Your task to perform on an android device: set default search engine in the chrome app Image 0: 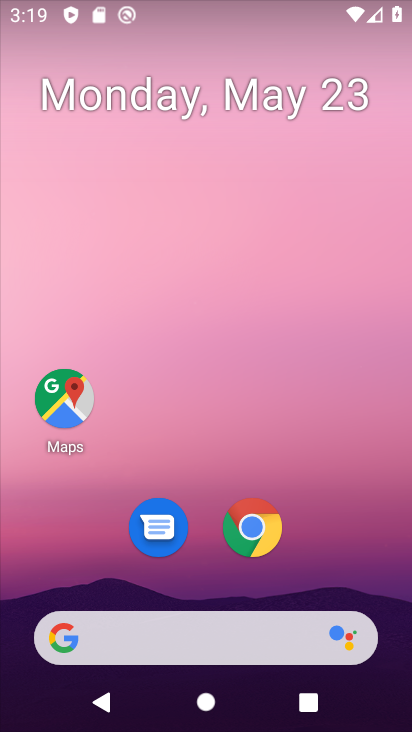
Step 0: click (262, 533)
Your task to perform on an android device: set default search engine in the chrome app Image 1: 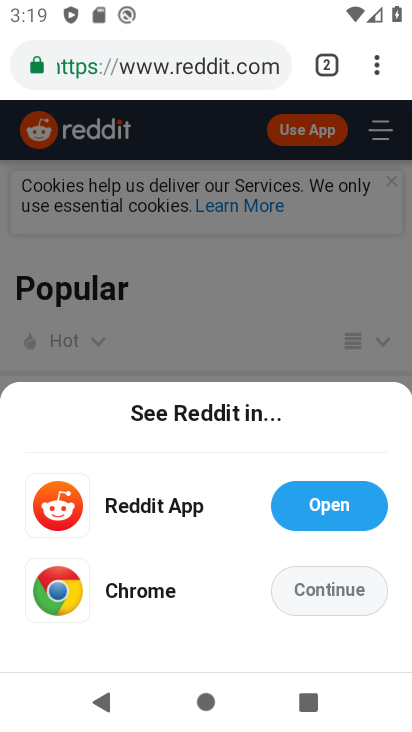
Step 1: click (388, 52)
Your task to perform on an android device: set default search engine in the chrome app Image 2: 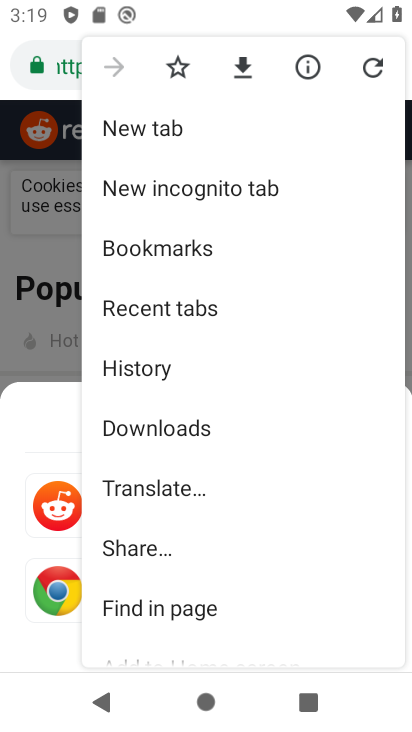
Step 2: drag from (248, 508) to (248, 182)
Your task to perform on an android device: set default search engine in the chrome app Image 3: 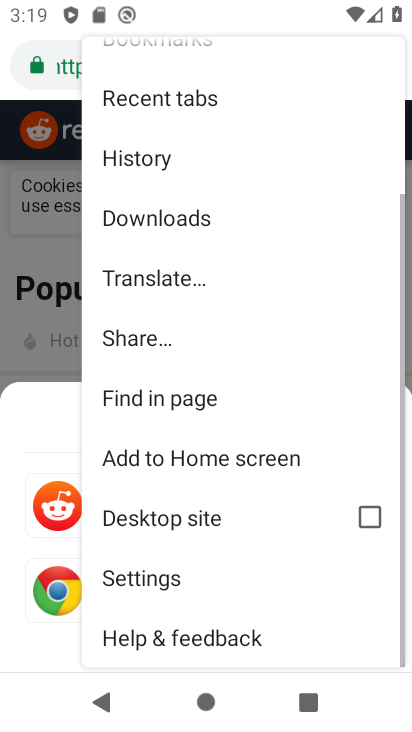
Step 3: drag from (249, 567) to (265, 217)
Your task to perform on an android device: set default search engine in the chrome app Image 4: 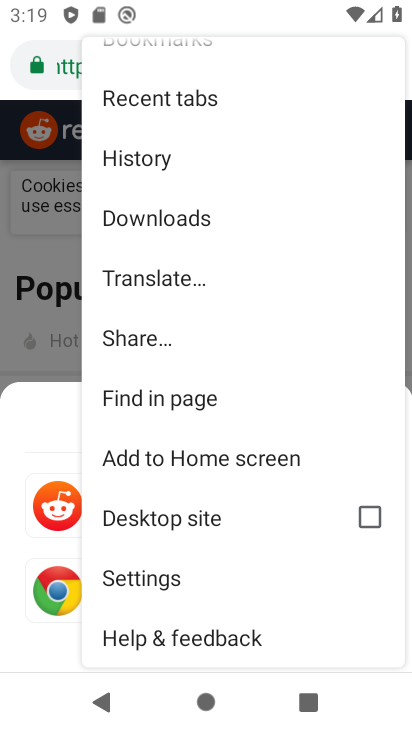
Step 4: click (182, 584)
Your task to perform on an android device: set default search engine in the chrome app Image 5: 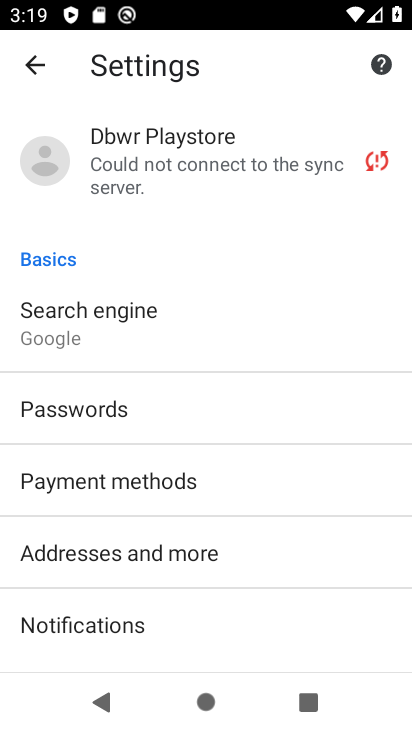
Step 5: click (221, 302)
Your task to perform on an android device: set default search engine in the chrome app Image 6: 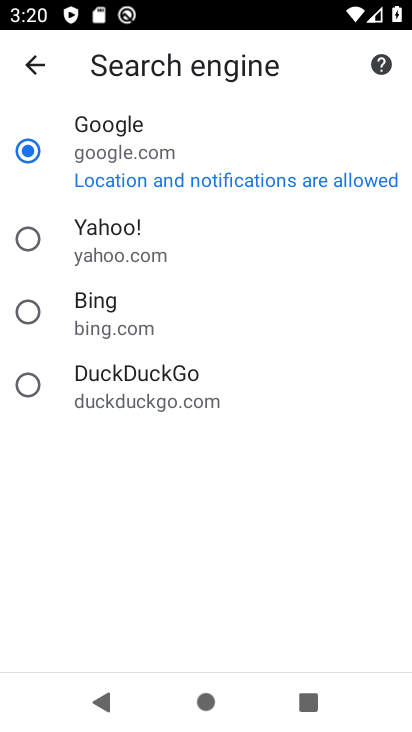
Step 6: task complete